Your task to perform on an android device: clear all cookies in the chrome app Image 0: 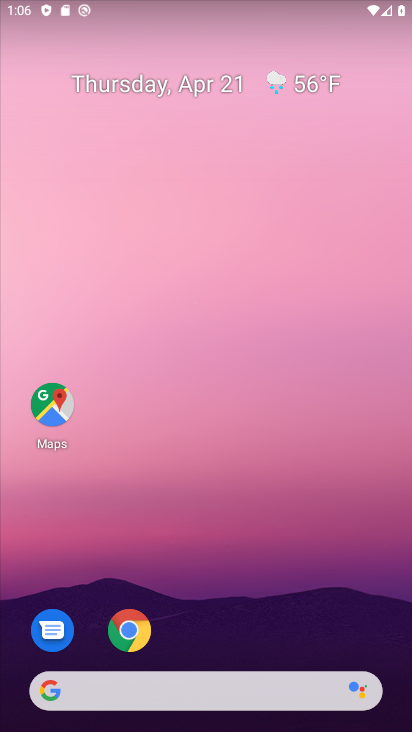
Step 0: click (128, 649)
Your task to perform on an android device: clear all cookies in the chrome app Image 1: 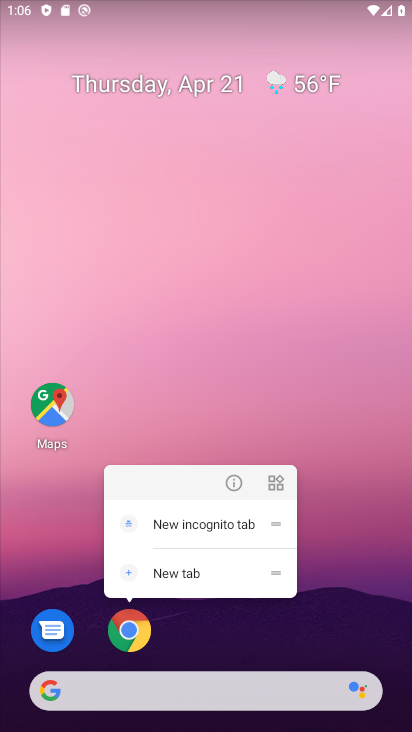
Step 1: click (128, 649)
Your task to perform on an android device: clear all cookies in the chrome app Image 2: 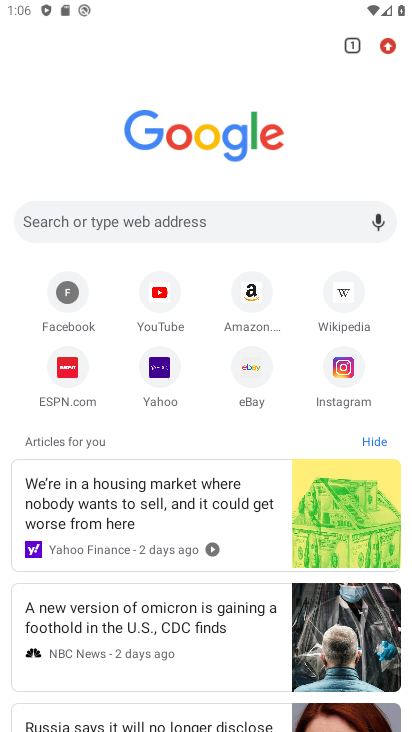
Step 2: task complete